Your task to perform on an android device: Open CNN.com Image 0: 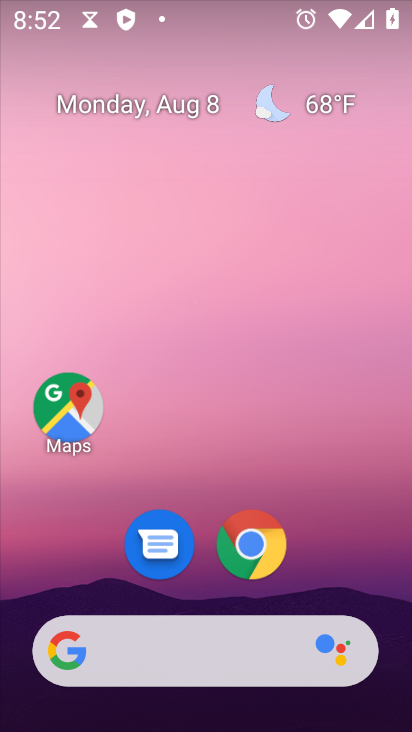
Step 0: press home button
Your task to perform on an android device: Open CNN.com Image 1: 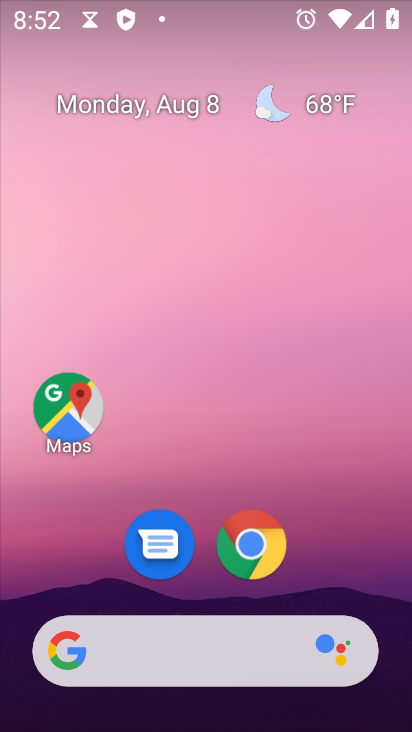
Step 1: drag from (315, 575) to (297, 33)
Your task to perform on an android device: Open CNN.com Image 2: 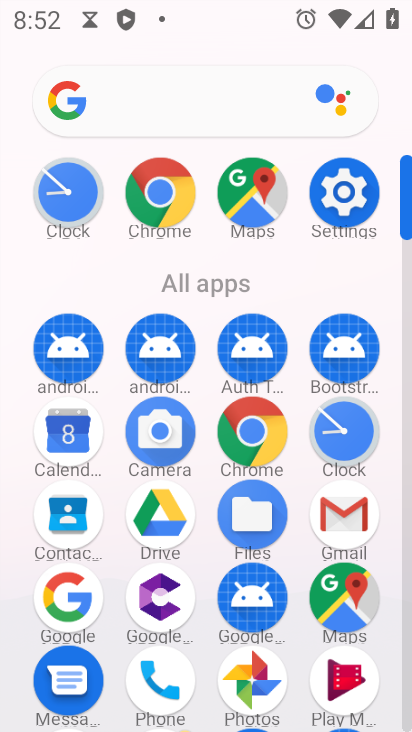
Step 2: click (165, 190)
Your task to perform on an android device: Open CNN.com Image 3: 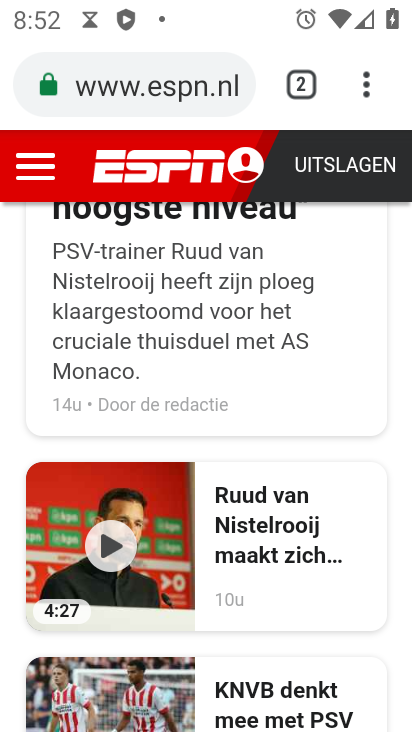
Step 3: click (300, 79)
Your task to perform on an android device: Open CNN.com Image 4: 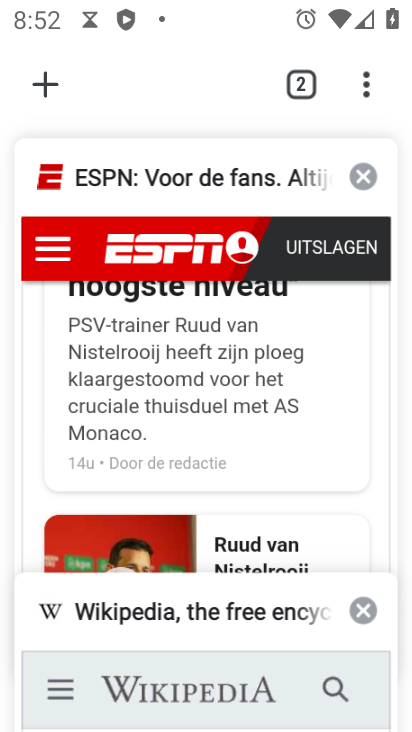
Step 4: click (50, 84)
Your task to perform on an android device: Open CNN.com Image 5: 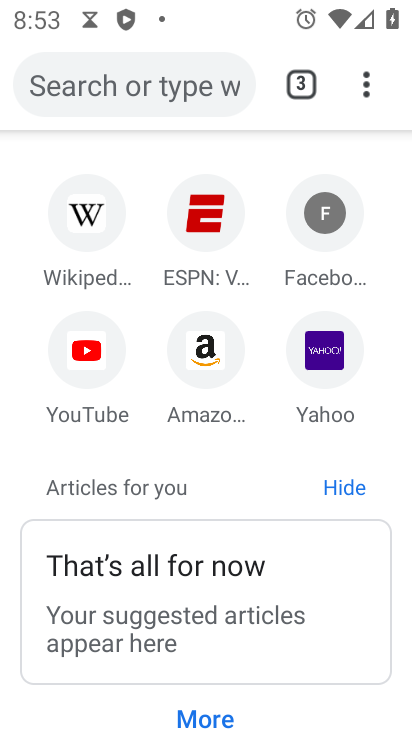
Step 5: click (116, 91)
Your task to perform on an android device: Open CNN.com Image 6: 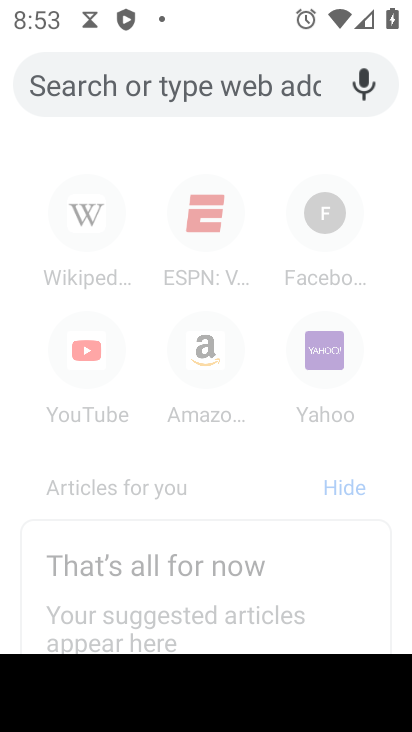
Step 6: type "cnn.com"
Your task to perform on an android device: Open CNN.com Image 7: 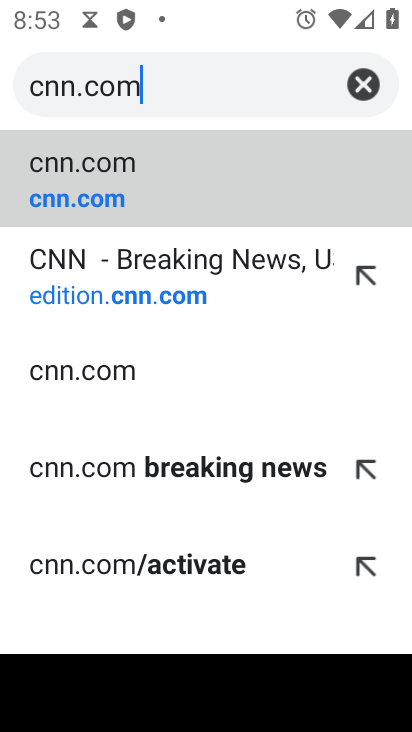
Step 7: click (138, 181)
Your task to perform on an android device: Open CNN.com Image 8: 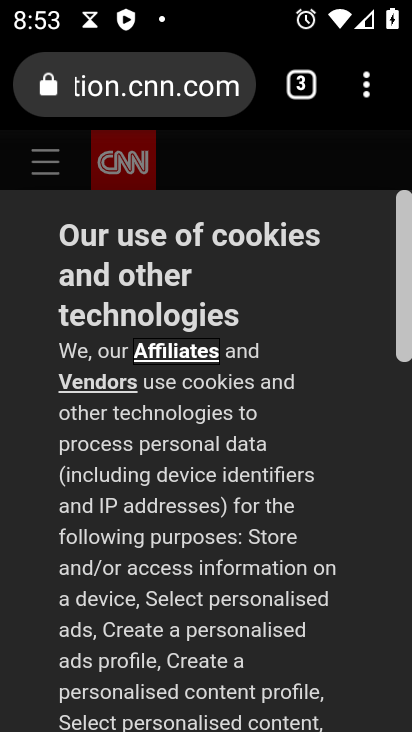
Step 8: drag from (216, 634) to (228, 235)
Your task to perform on an android device: Open CNN.com Image 9: 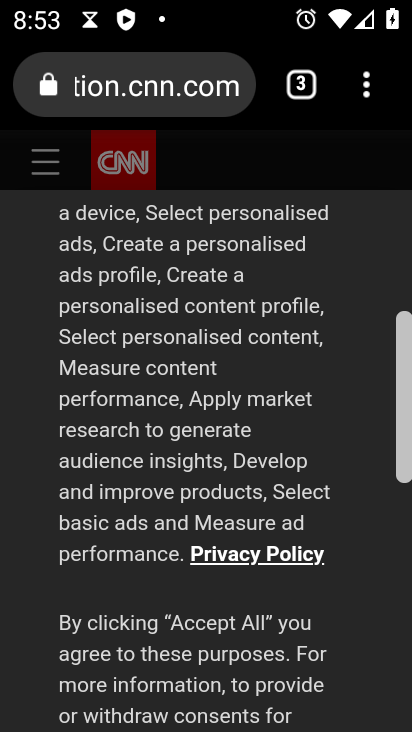
Step 9: drag from (201, 664) to (201, 204)
Your task to perform on an android device: Open CNN.com Image 10: 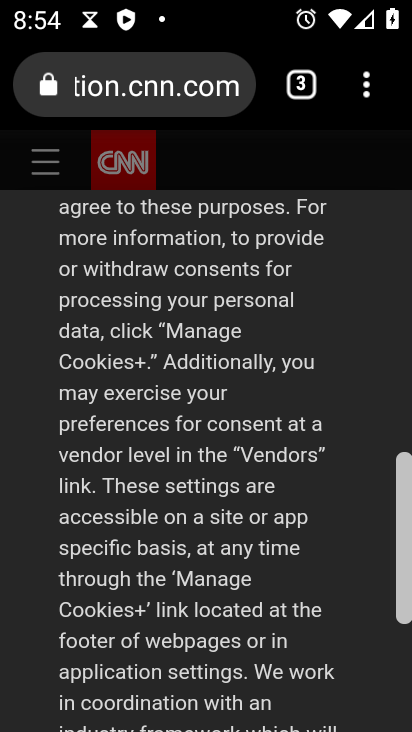
Step 10: drag from (216, 680) to (233, 250)
Your task to perform on an android device: Open CNN.com Image 11: 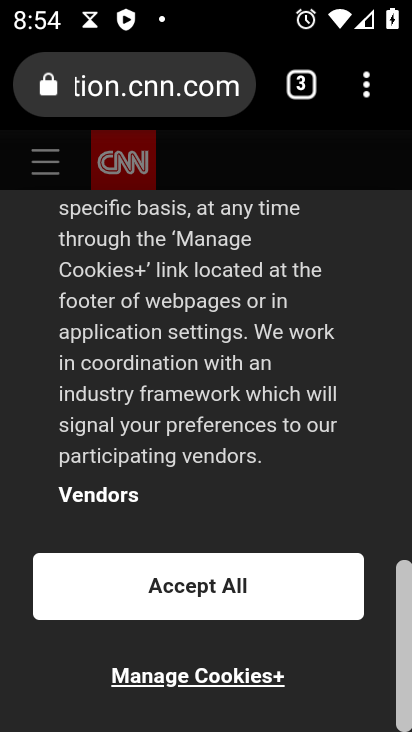
Step 11: click (191, 579)
Your task to perform on an android device: Open CNN.com Image 12: 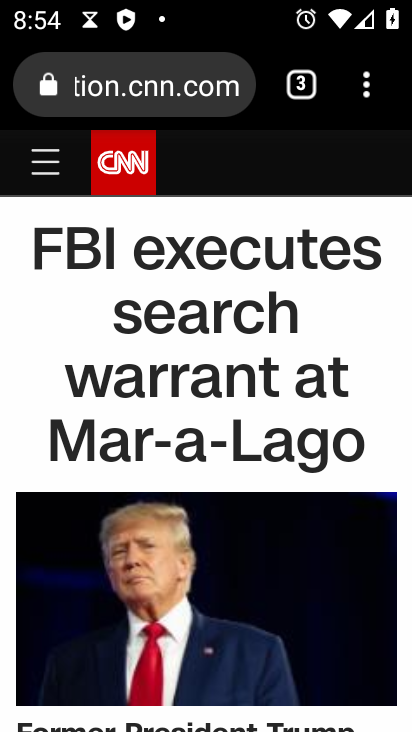
Step 12: task complete